Your task to perform on an android device: toggle javascript in the chrome app Image 0: 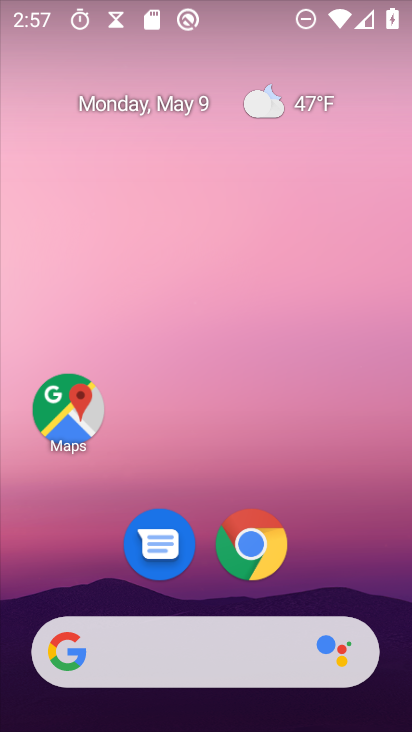
Step 0: drag from (349, 588) to (331, 79)
Your task to perform on an android device: toggle javascript in the chrome app Image 1: 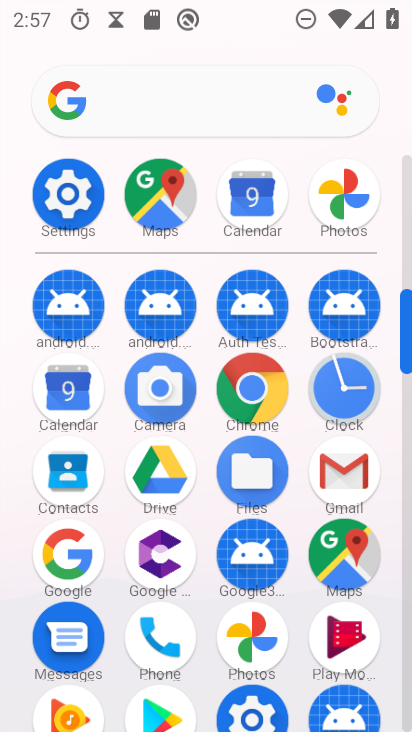
Step 1: click (248, 392)
Your task to perform on an android device: toggle javascript in the chrome app Image 2: 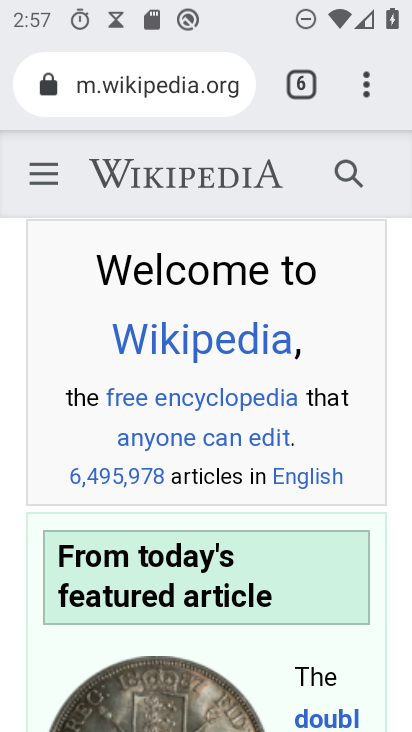
Step 2: drag from (362, 102) to (80, 613)
Your task to perform on an android device: toggle javascript in the chrome app Image 3: 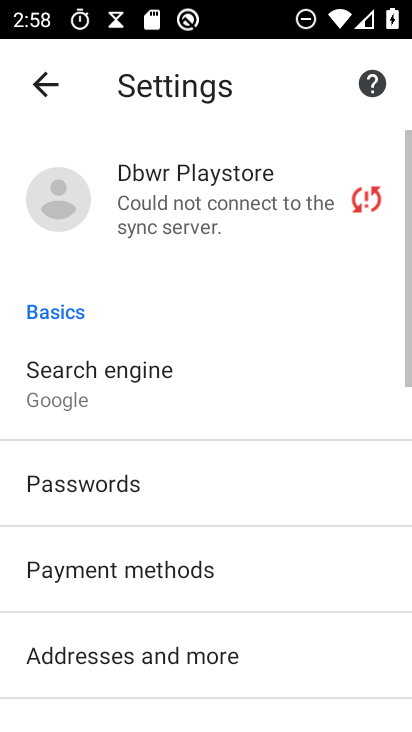
Step 3: drag from (100, 641) to (90, 279)
Your task to perform on an android device: toggle javascript in the chrome app Image 4: 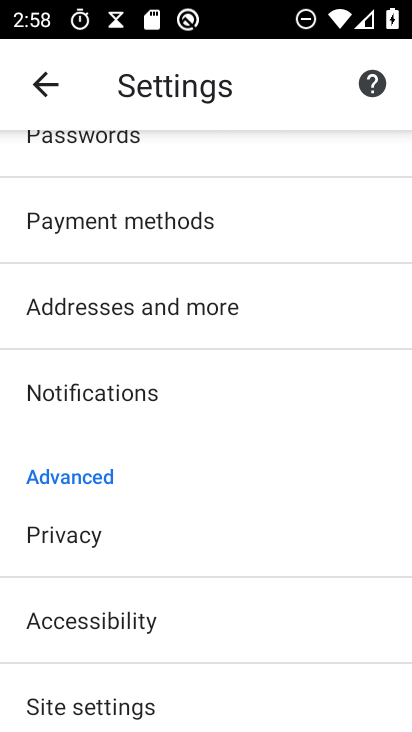
Step 4: drag from (143, 662) to (159, 175)
Your task to perform on an android device: toggle javascript in the chrome app Image 5: 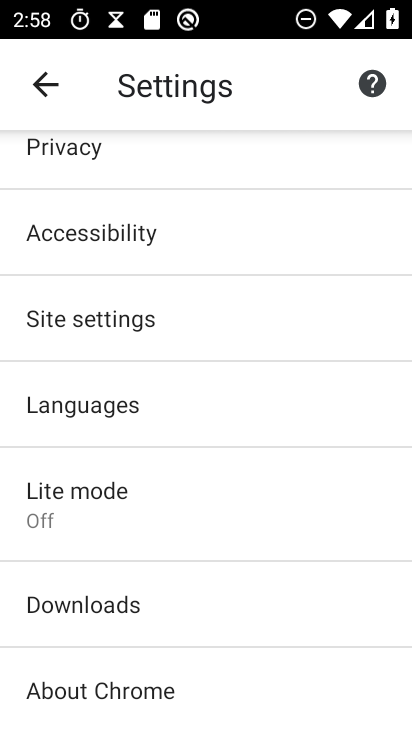
Step 5: click (93, 338)
Your task to perform on an android device: toggle javascript in the chrome app Image 6: 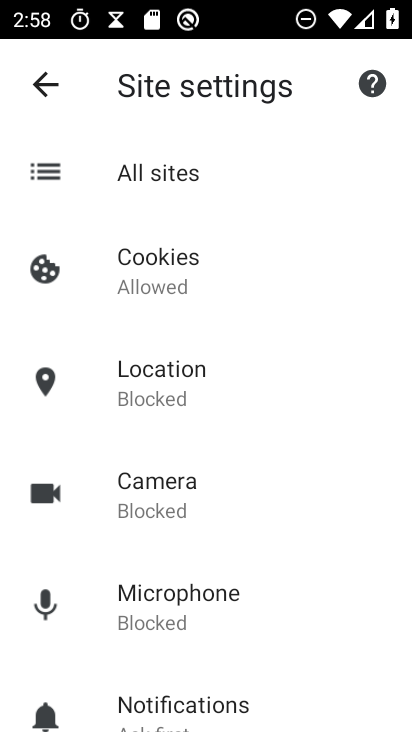
Step 6: drag from (226, 678) to (205, 263)
Your task to perform on an android device: toggle javascript in the chrome app Image 7: 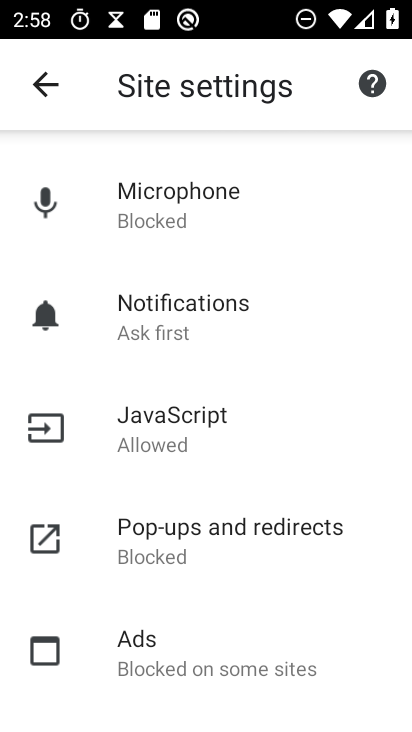
Step 7: click (197, 413)
Your task to perform on an android device: toggle javascript in the chrome app Image 8: 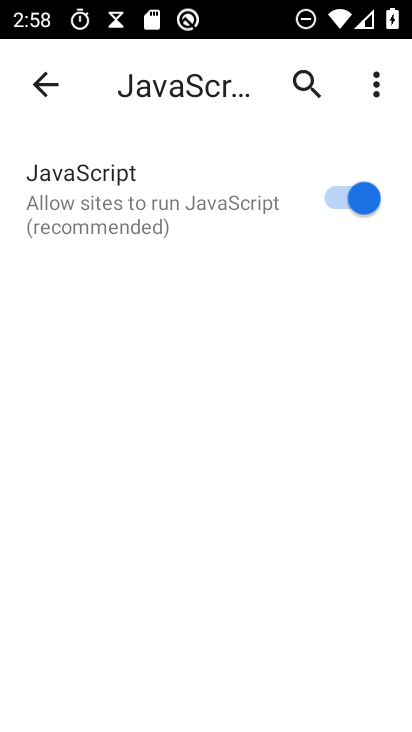
Step 8: click (338, 200)
Your task to perform on an android device: toggle javascript in the chrome app Image 9: 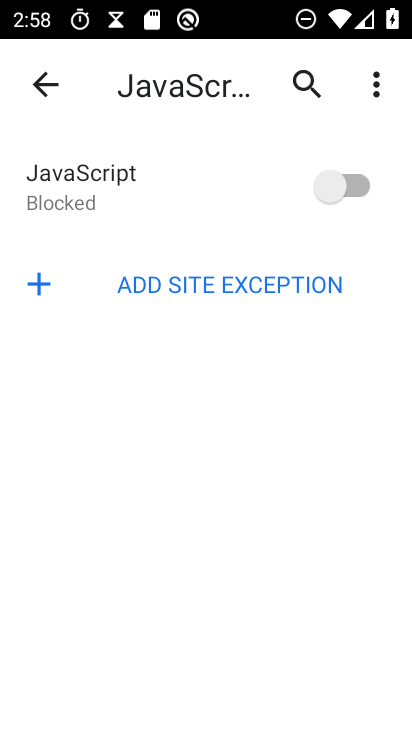
Step 9: task complete